Your task to perform on an android device: turn off data saver in the chrome app Image 0: 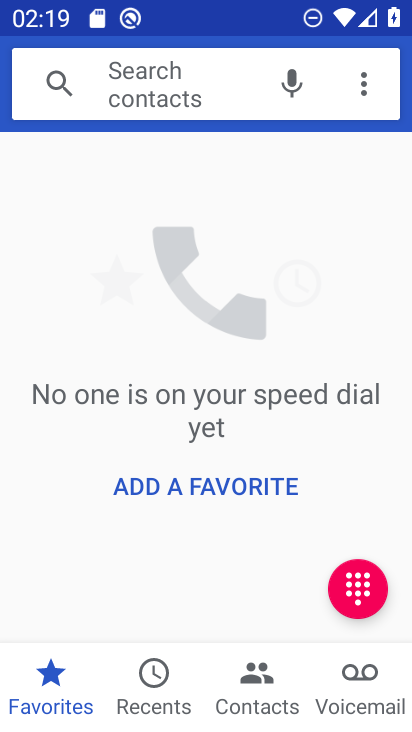
Step 0: press home button
Your task to perform on an android device: turn off data saver in the chrome app Image 1: 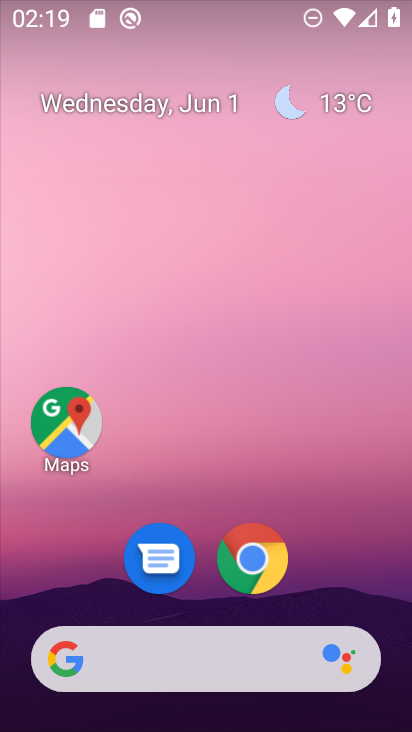
Step 1: click (250, 556)
Your task to perform on an android device: turn off data saver in the chrome app Image 2: 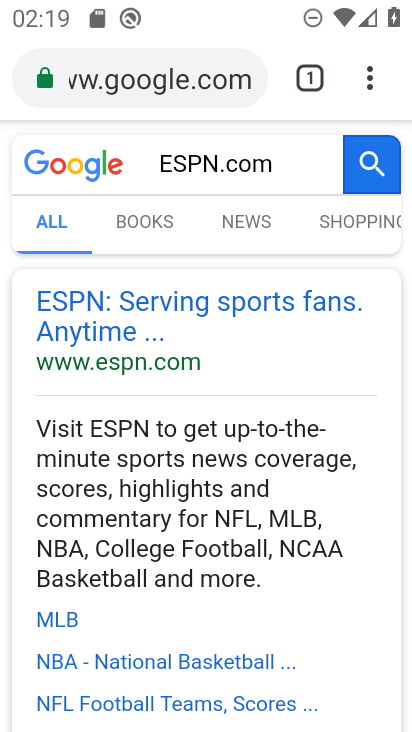
Step 2: click (372, 67)
Your task to perform on an android device: turn off data saver in the chrome app Image 3: 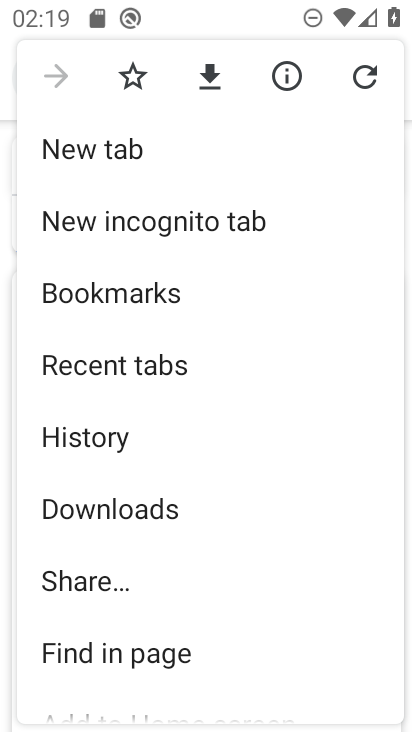
Step 3: drag from (244, 631) to (259, 282)
Your task to perform on an android device: turn off data saver in the chrome app Image 4: 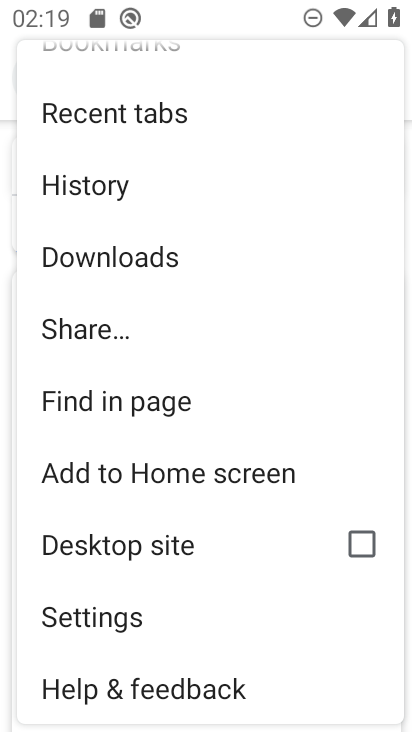
Step 4: click (58, 614)
Your task to perform on an android device: turn off data saver in the chrome app Image 5: 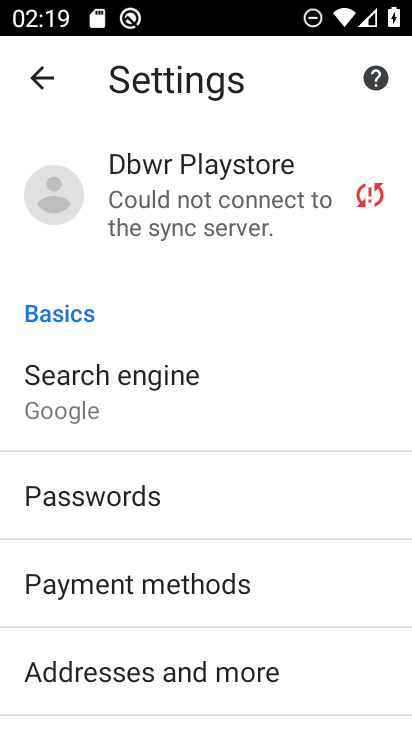
Step 5: drag from (325, 684) to (269, 132)
Your task to perform on an android device: turn off data saver in the chrome app Image 6: 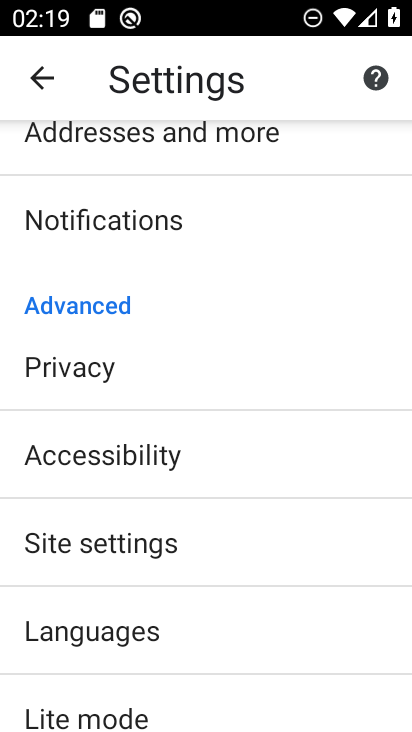
Step 6: drag from (317, 676) to (279, 241)
Your task to perform on an android device: turn off data saver in the chrome app Image 7: 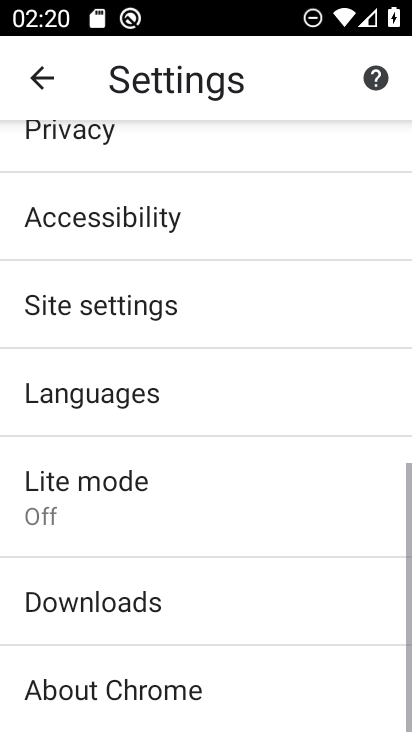
Step 7: drag from (265, 572) to (253, 197)
Your task to perform on an android device: turn off data saver in the chrome app Image 8: 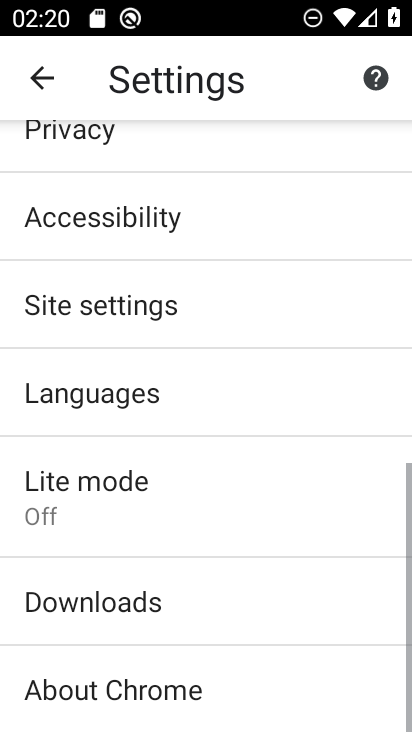
Step 8: click (72, 711)
Your task to perform on an android device: turn off data saver in the chrome app Image 9: 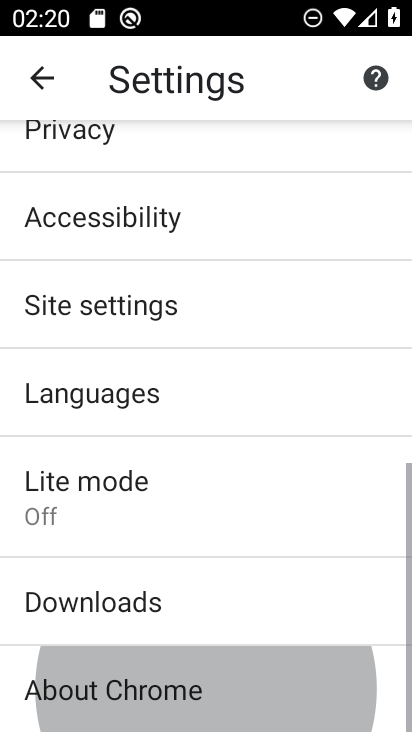
Step 9: click (88, 703)
Your task to perform on an android device: turn off data saver in the chrome app Image 10: 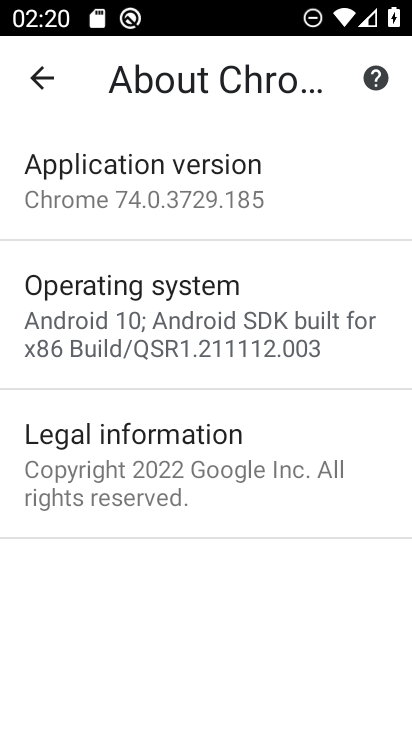
Step 10: click (33, 73)
Your task to perform on an android device: turn off data saver in the chrome app Image 11: 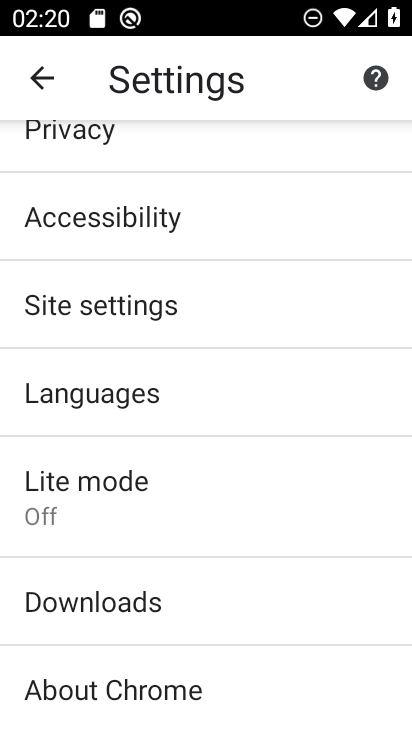
Step 11: click (85, 495)
Your task to perform on an android device: turn off data saver in the chrome app Image 12: 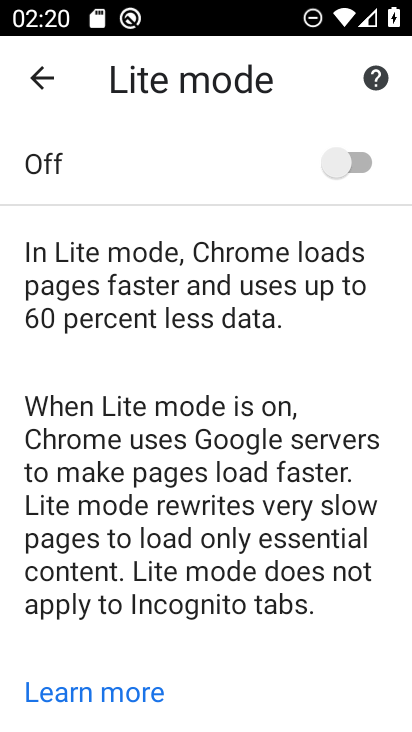
Step 12: task complete